Your task to perform on an android device: Open ESPN.com Image 0: 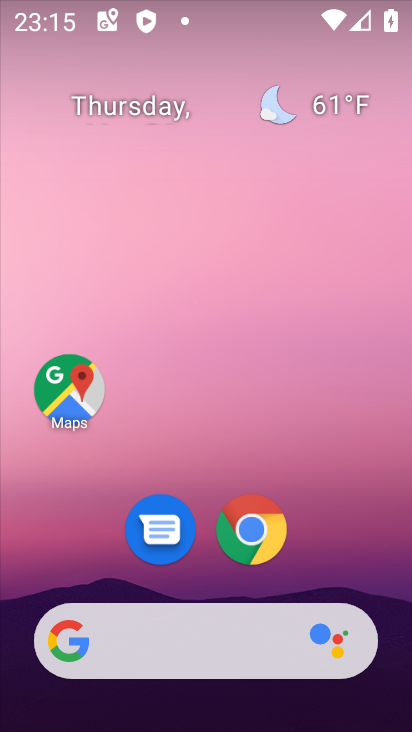
Step 0: click (222, 641)
Your task to perform on an android device: Open ESPN.com Image 1: 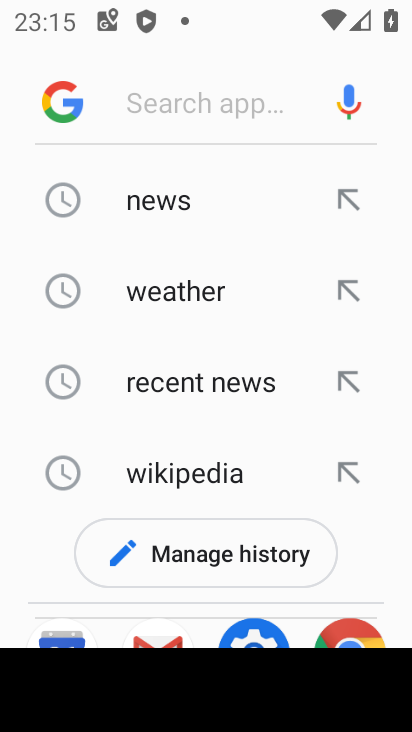
Step 1: type "espn.com"
Your task to perform on an android device: Open ESPN.com Image 2: 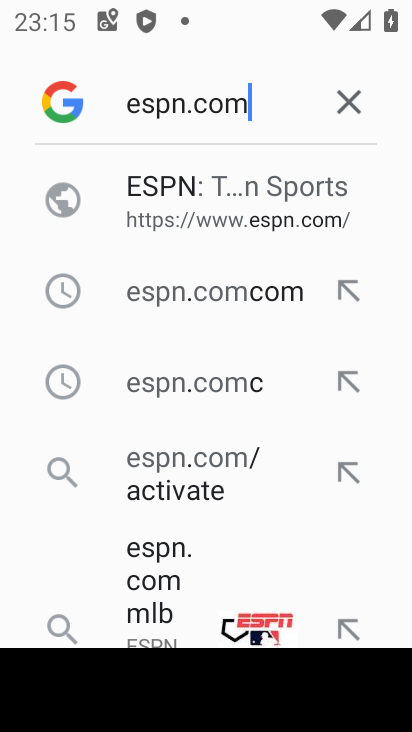
Step 2: click (298, 190)
Your task to perform on an android device: Open ESPN.com Image 3: 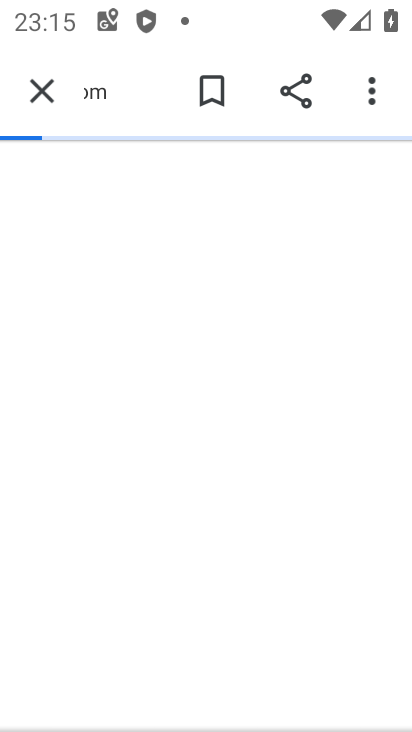
Step 3: task complete